Your task to perform on an android device: Open privacy settings Image 0: 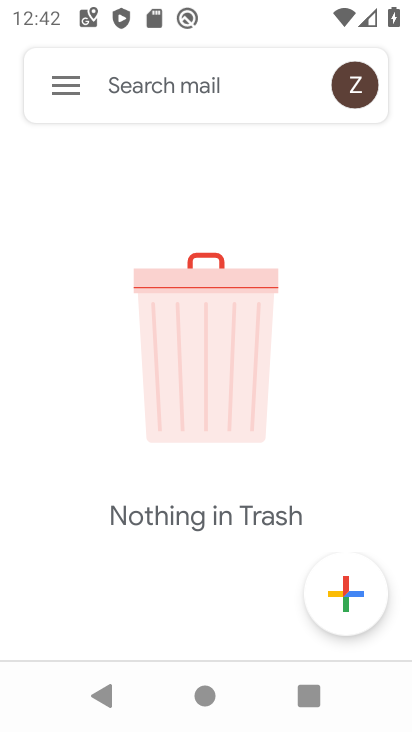
Step 0: press home button
Your task to perform on an android device: Open privacy settings Image 1: 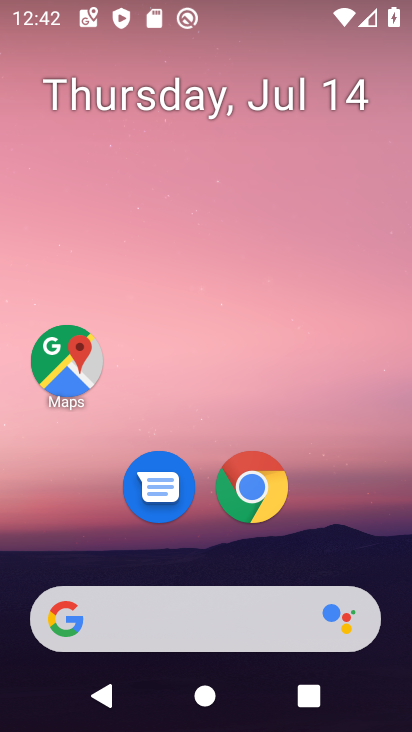
Step 1: drag from (202, 605) to (255, 42)
Your task to perform on an android device: Open privacy settings Image 2: 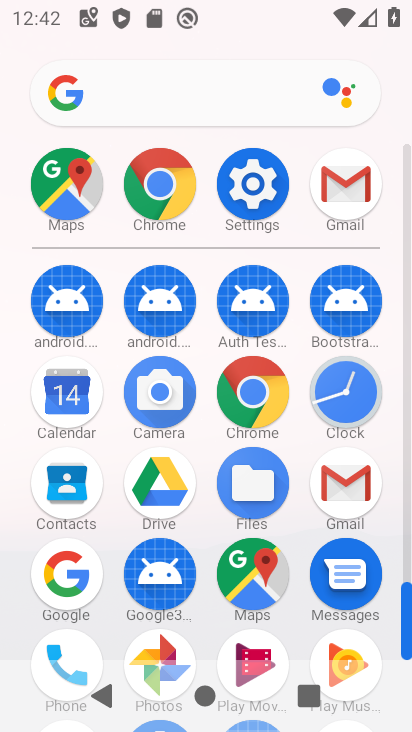
Step 2: click (252, 193)
Your task to perform on an android device: Open privacy settings Image 3: 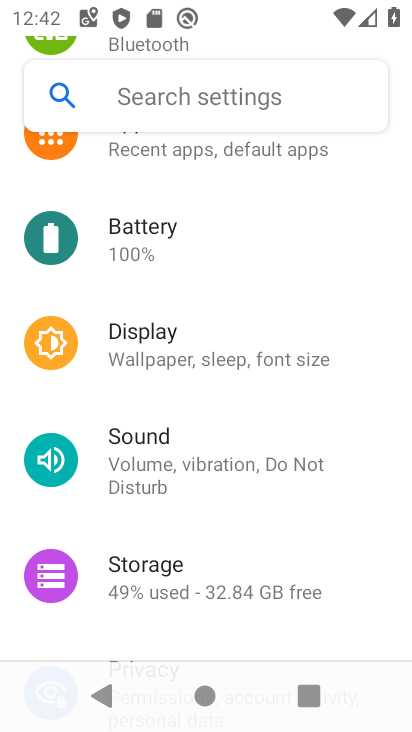
Step 3: drag from (240, 331) to (180, 606)
Your task to perform on an android device: Open privacy settings Image 4: 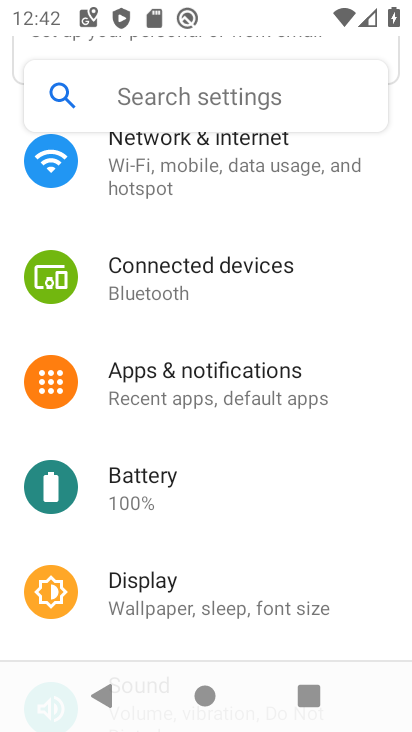
Step 4: drag from (205, 349) to (281, 132)
Your task to perform on an android device: Open privacy settings Image 5: 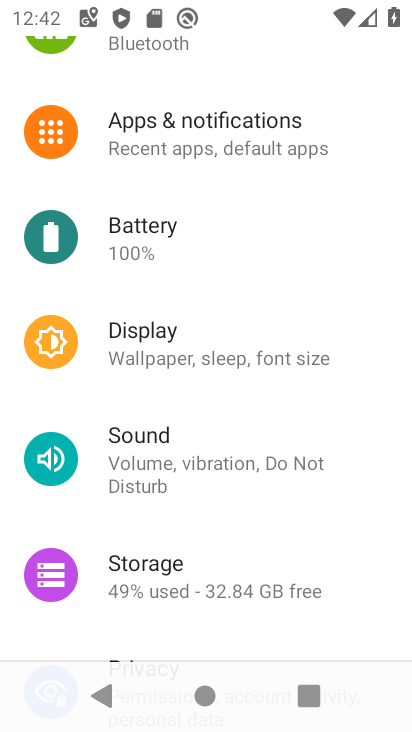
Step 5: drag from (238, 480) to (263, 107)
Your task to perform on an android device: Open privacy settings Image 6: 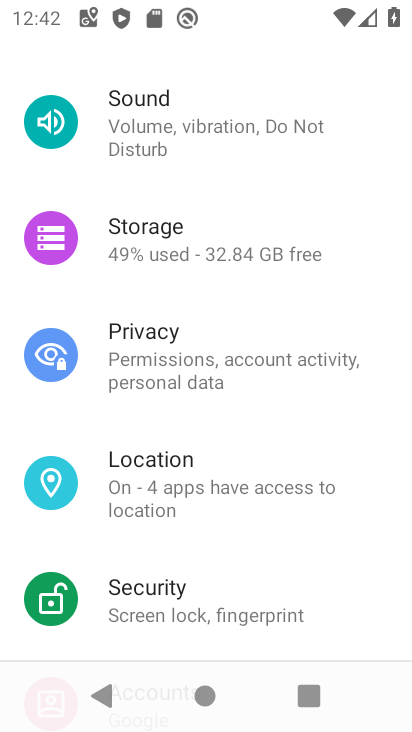
Step 6: drag from (189, 519) to (197, 283)
Your task to perform on an android device: Open privacy settings Image 7: 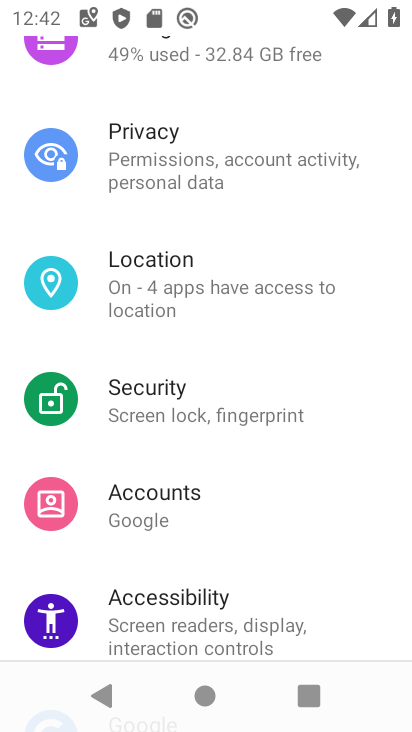
Step 7: drag from (193, 498) to (192, 340)
Your task to perform on an android device: Open privacy settings Image 8: 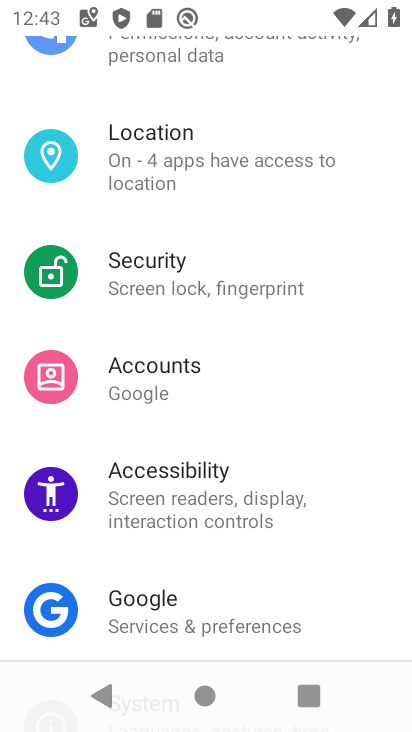
Step 8: drag from (174, 532) to (191, 325)
Your task to perform on an android device: Open privacy settings Image 9: 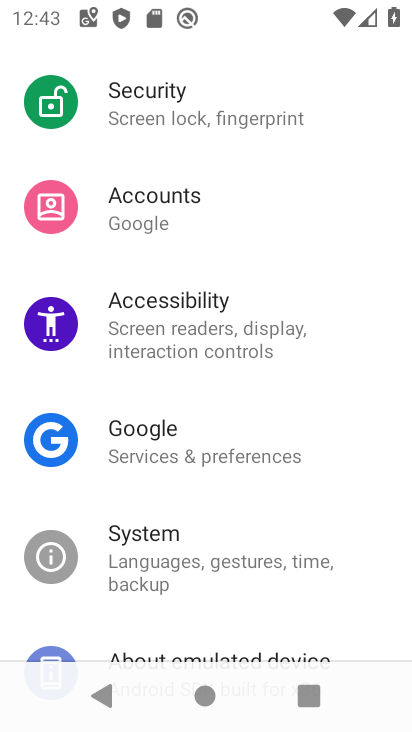
Step 9: drag from (184, 535) to (202, 342)
Your task to perform on an android device: Open privacy settings Image 10: 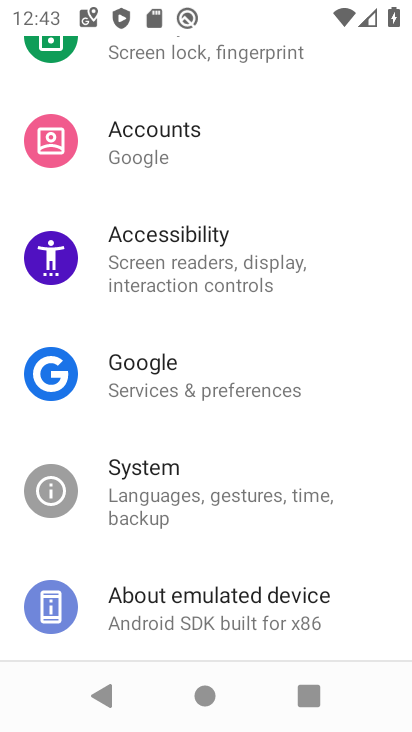
Step 10: drag from (217, 334) to (170, 678)
Your task to perform on an android device: Open privacy settings Image 11: 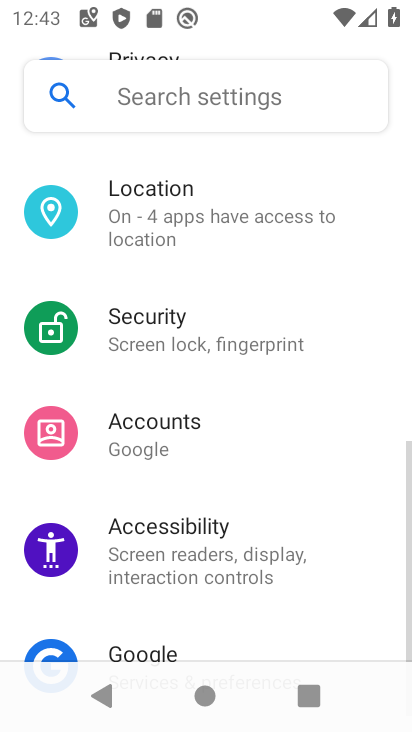
Step 11: drag from (231, 384) to (163, 726)
Your task to perform on an android device: Open privacy settings Image 12: 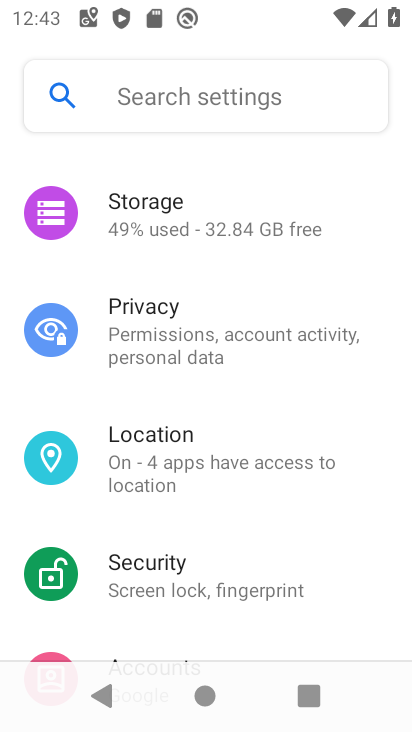
Step 12: click (209, 353)
Your task to perform on an android device: Open privacy settings Image 13: 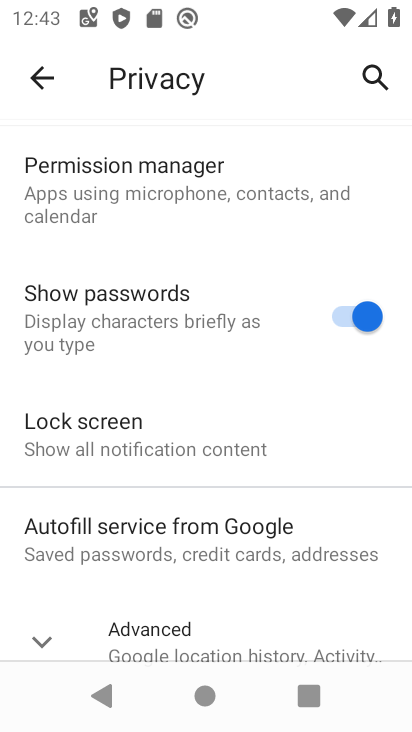
Step 13: task complete